Your task to perform on an android device: Toggle the flashlight Image 0: 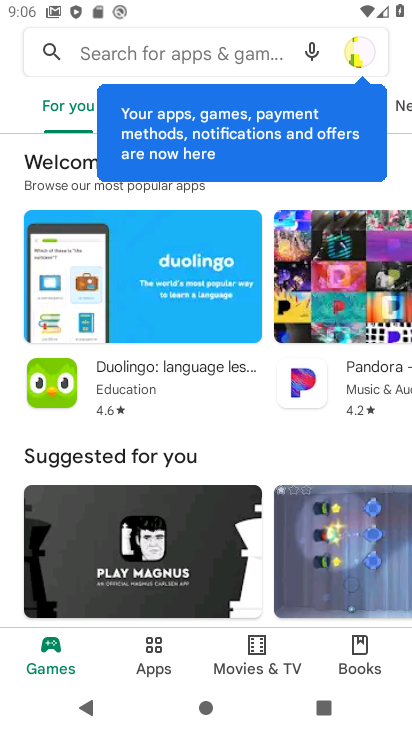
Step 0: press home button
Your task to perform on an android device: Toggle the flashlight Image 1: 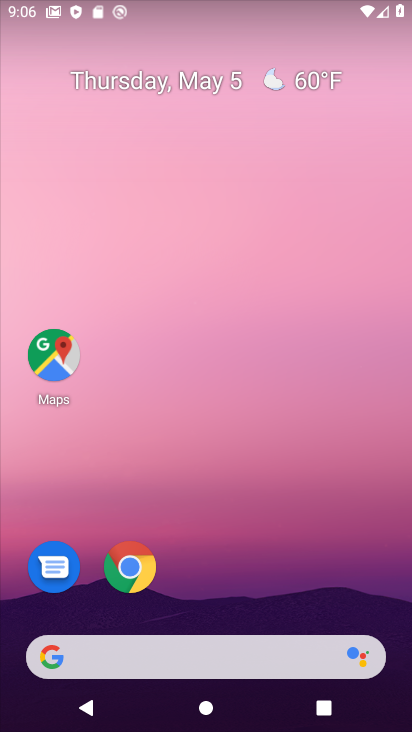
Step 1: drag from (227, 461) to (214, 107)
Your task to perform on an android device: Toggle the flashlight Image 2: 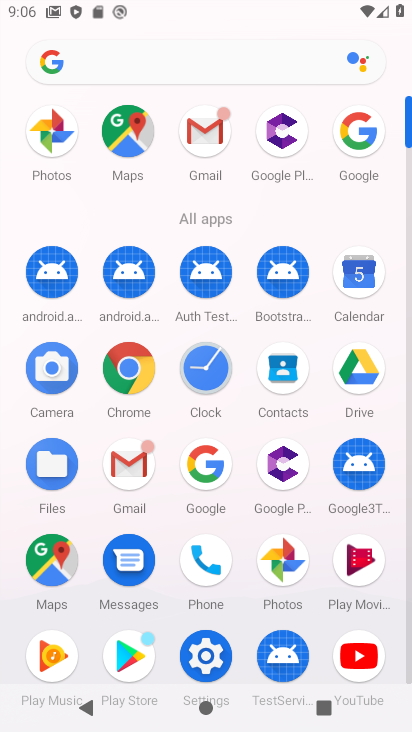
Step 2: click (196, 643)
Your task to perform on an android device: Toggle the flashlight Image 3: 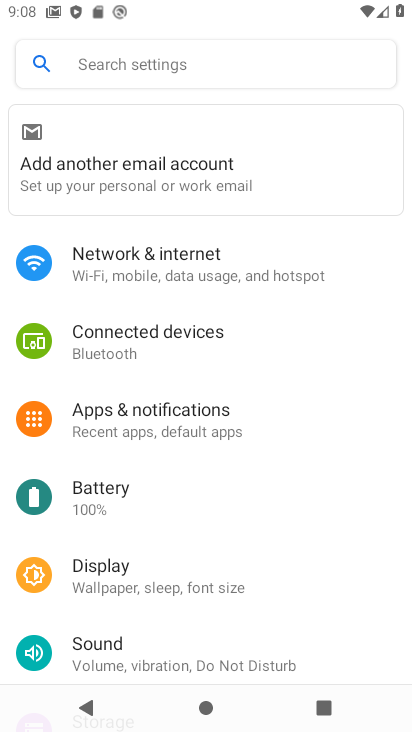
Step 3: task complete